Your task to perform on an android device: What is the news today? Image 0: 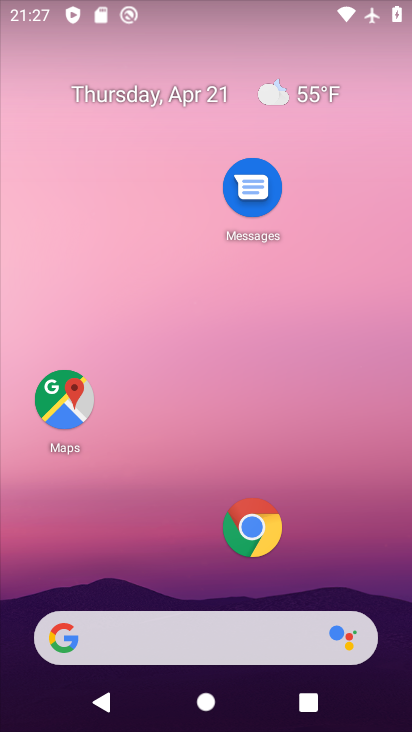
Step 0: drag from (10, 282) to (404, 362)
Your task to perform on an android device: What is the news today? Image 1: 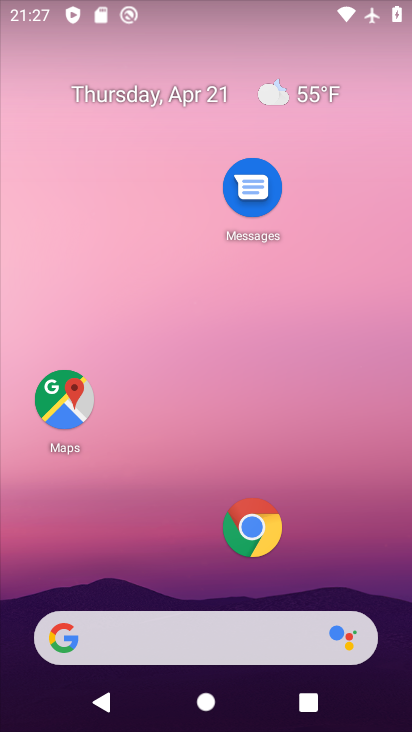
Step 1: task complete